Your task to perform on an android device: open app "Google Maps" Image 0: 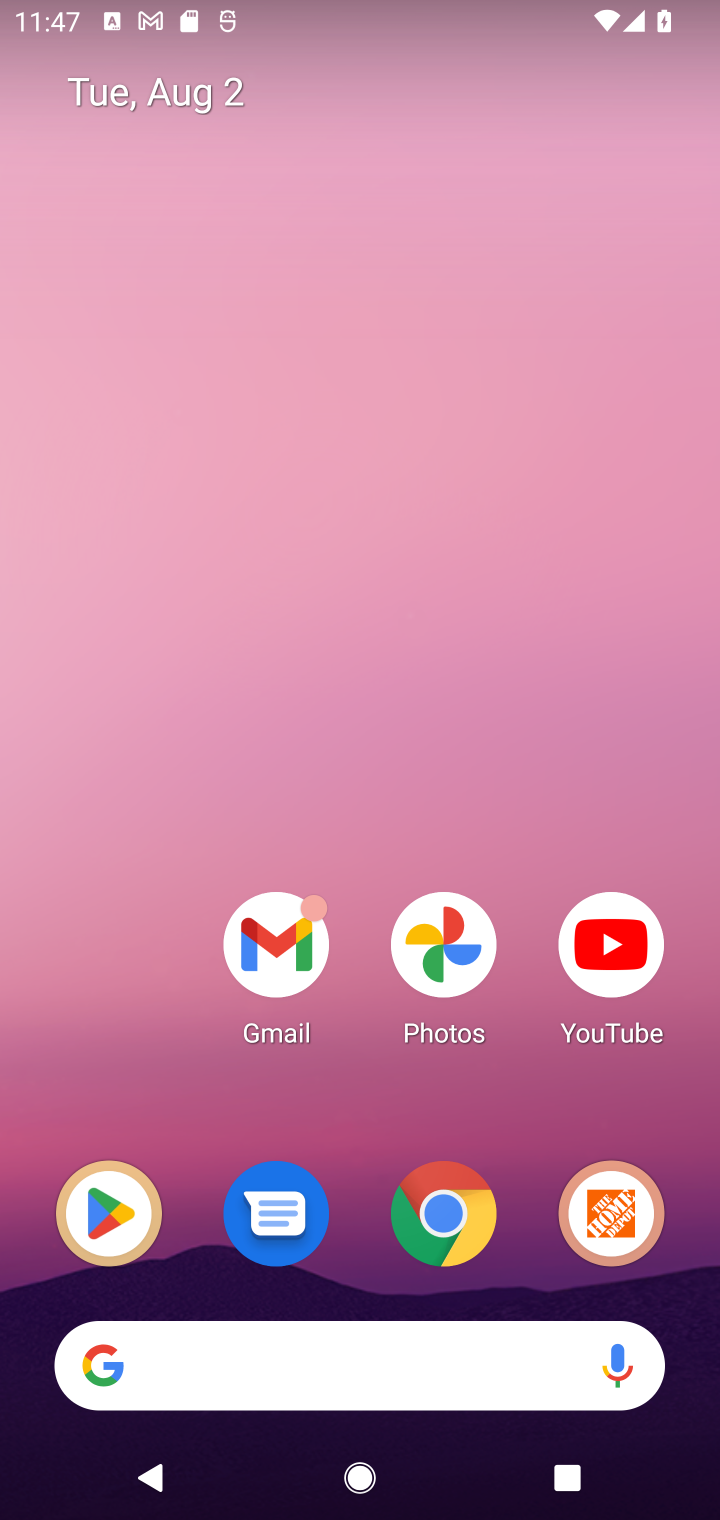
Step 0: click (88, 1229)
Your task to perform on an android device: open app "Google Maps" Image 1: 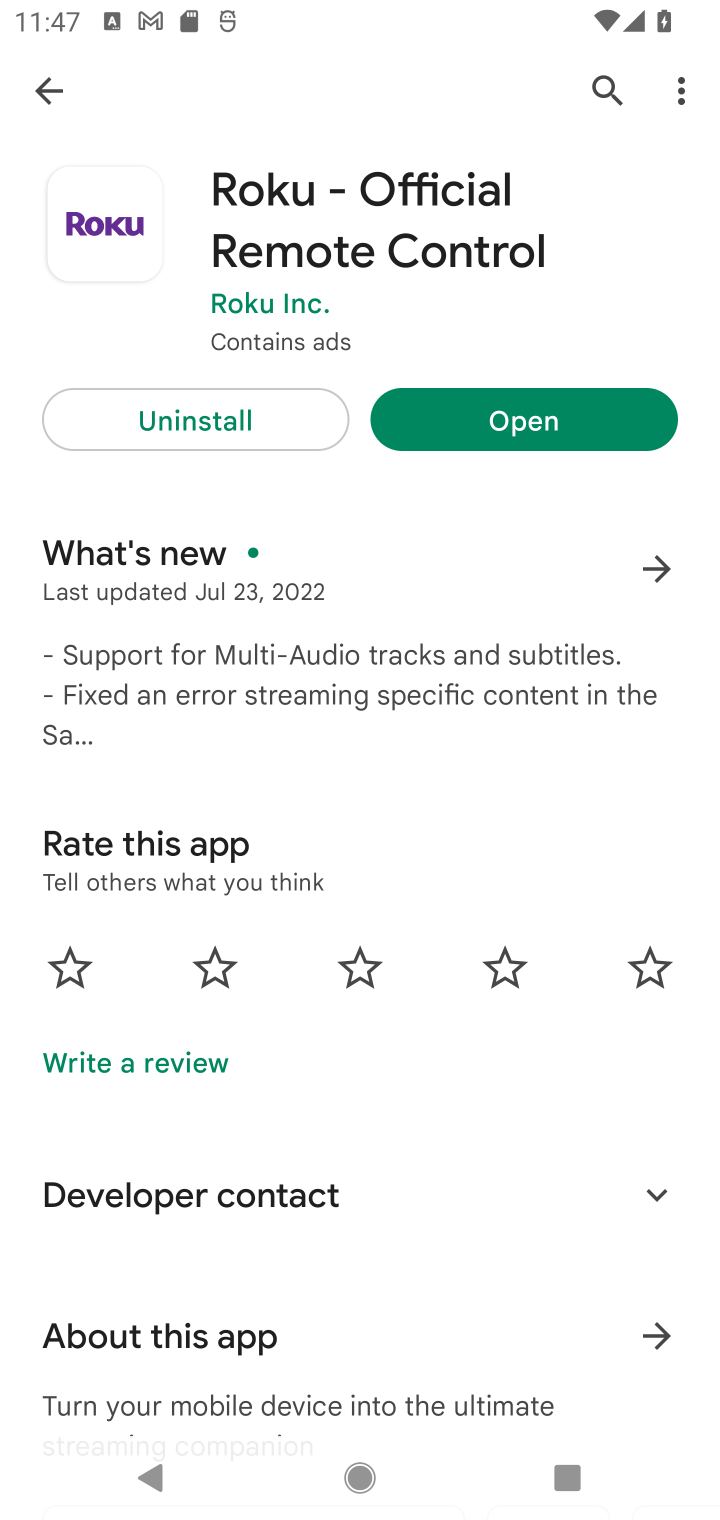
Step 1: click (47, 82)
Your task to perform on an android device: open app "Google Maps" Image 2: 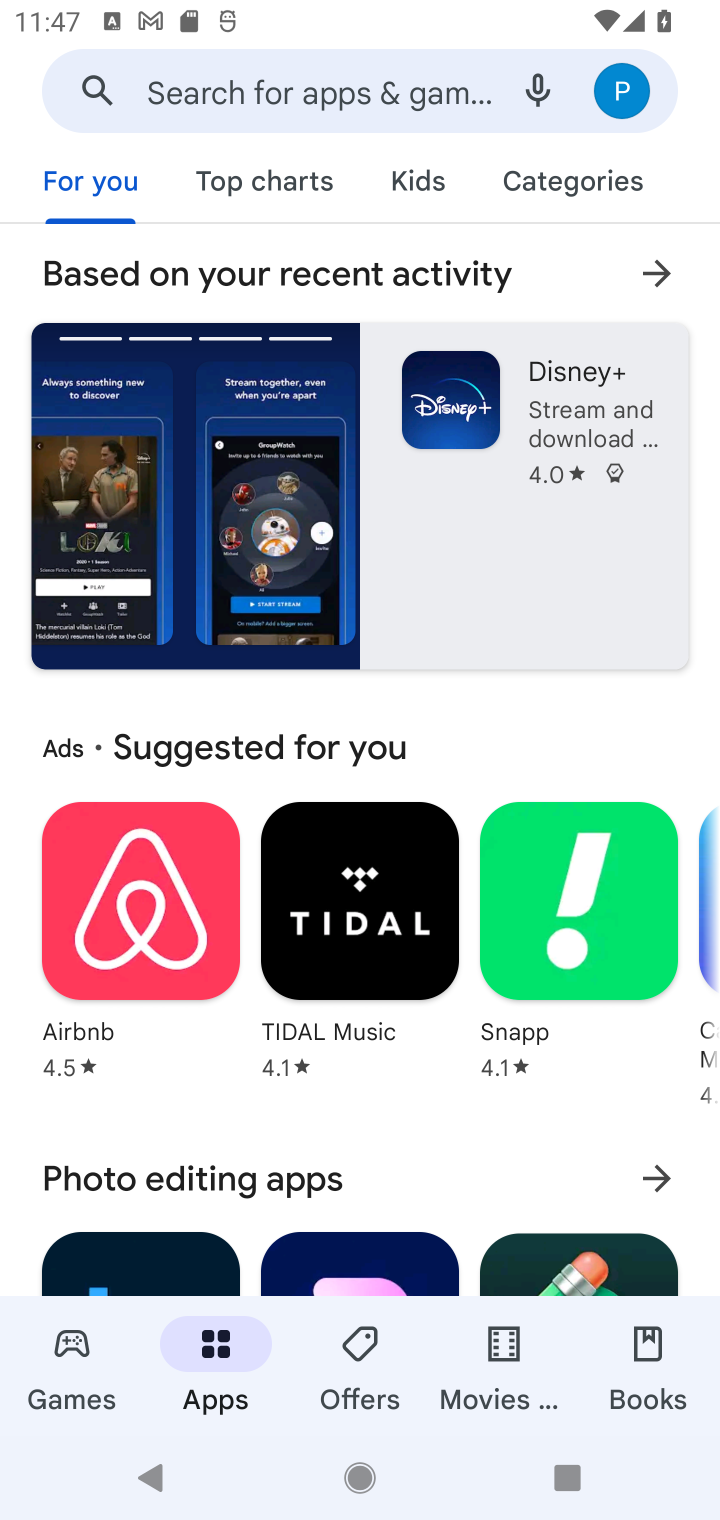
Step 2: click (233, 90)
Your task to perform on an android device: open app "Google Maps" Image 3: 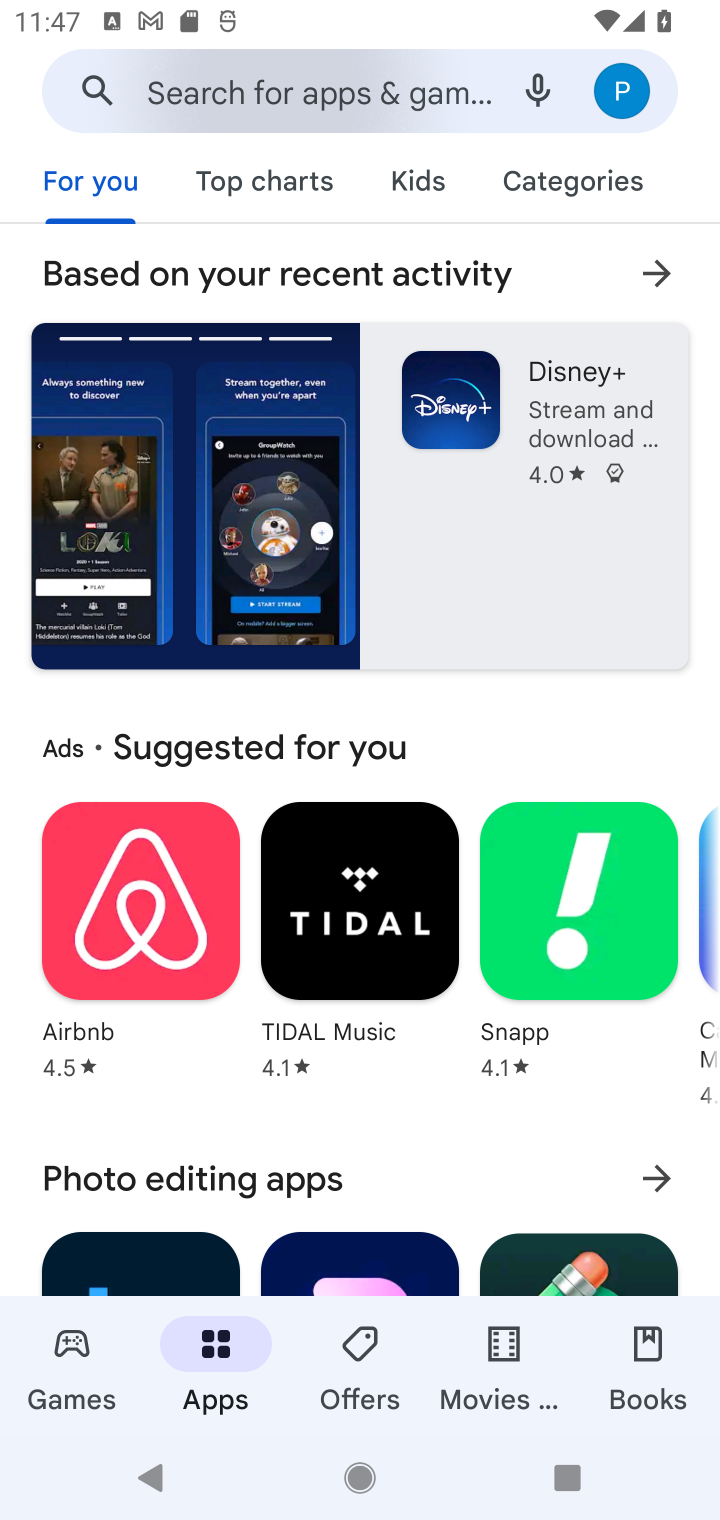
Step 3: click (277, 96)
Your task to perform on an android device: open app "Google Maps" Image 4: 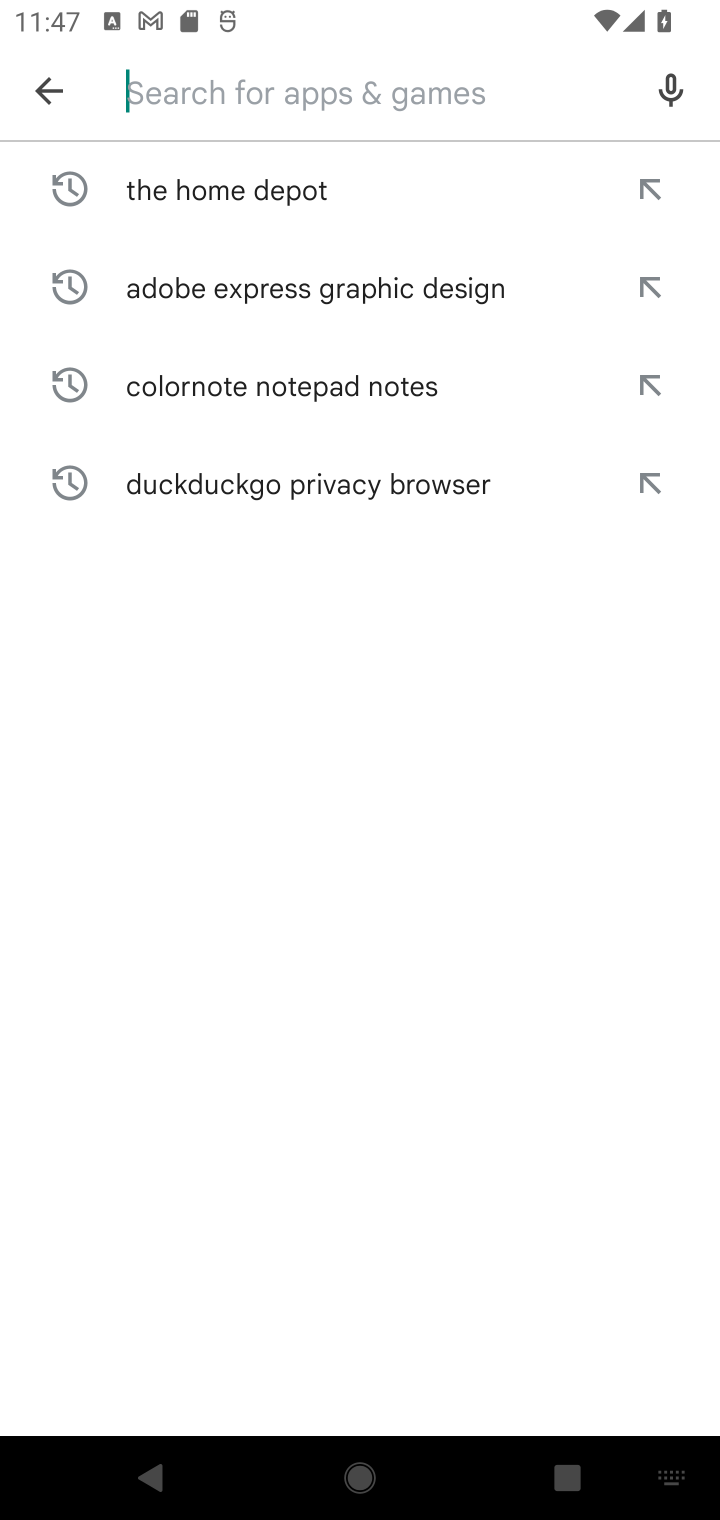
Step 4: type "Google Maps"
Your task to perform on an android device: open app "Google Maps" Image 5: 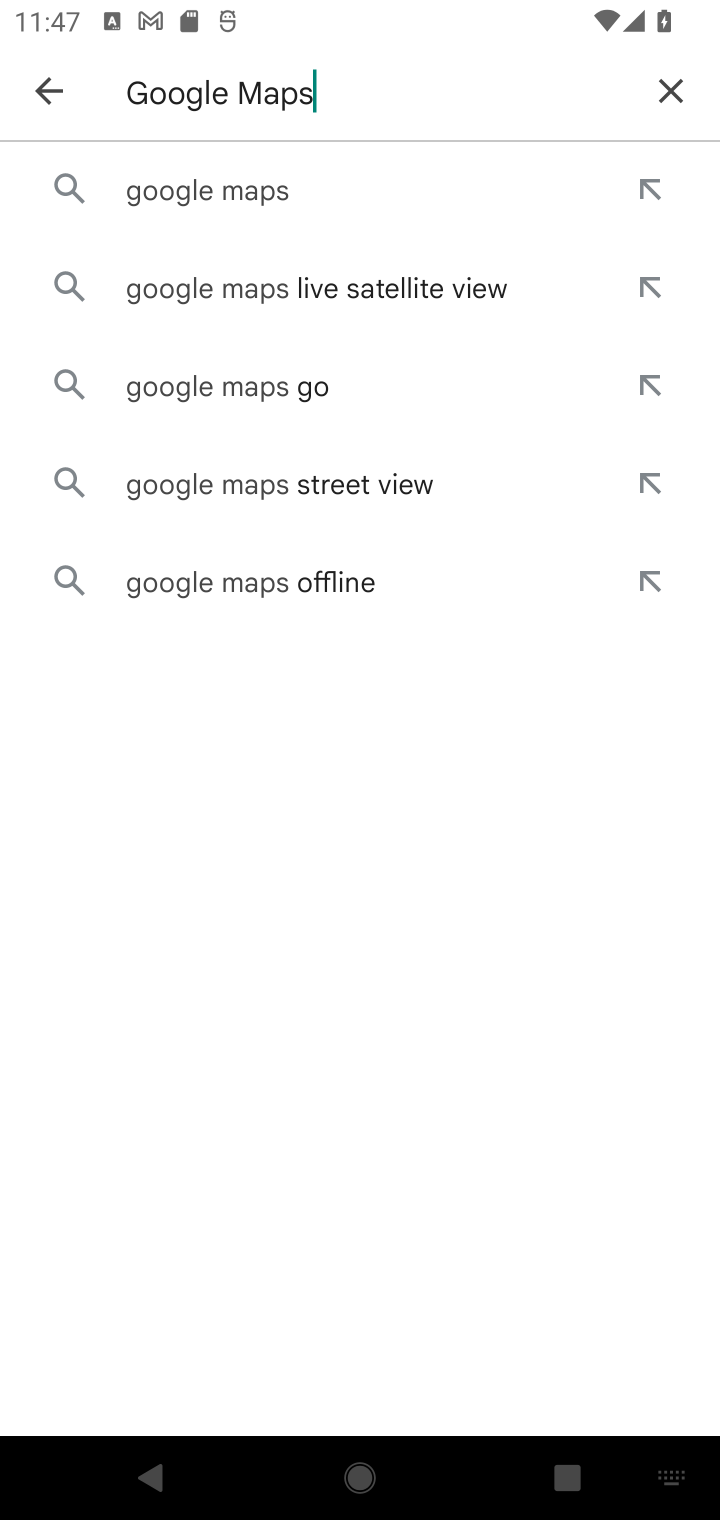
Step 5: click (228, 199)
Your task to perform on an android device: open app "Google Maps" Image 6: 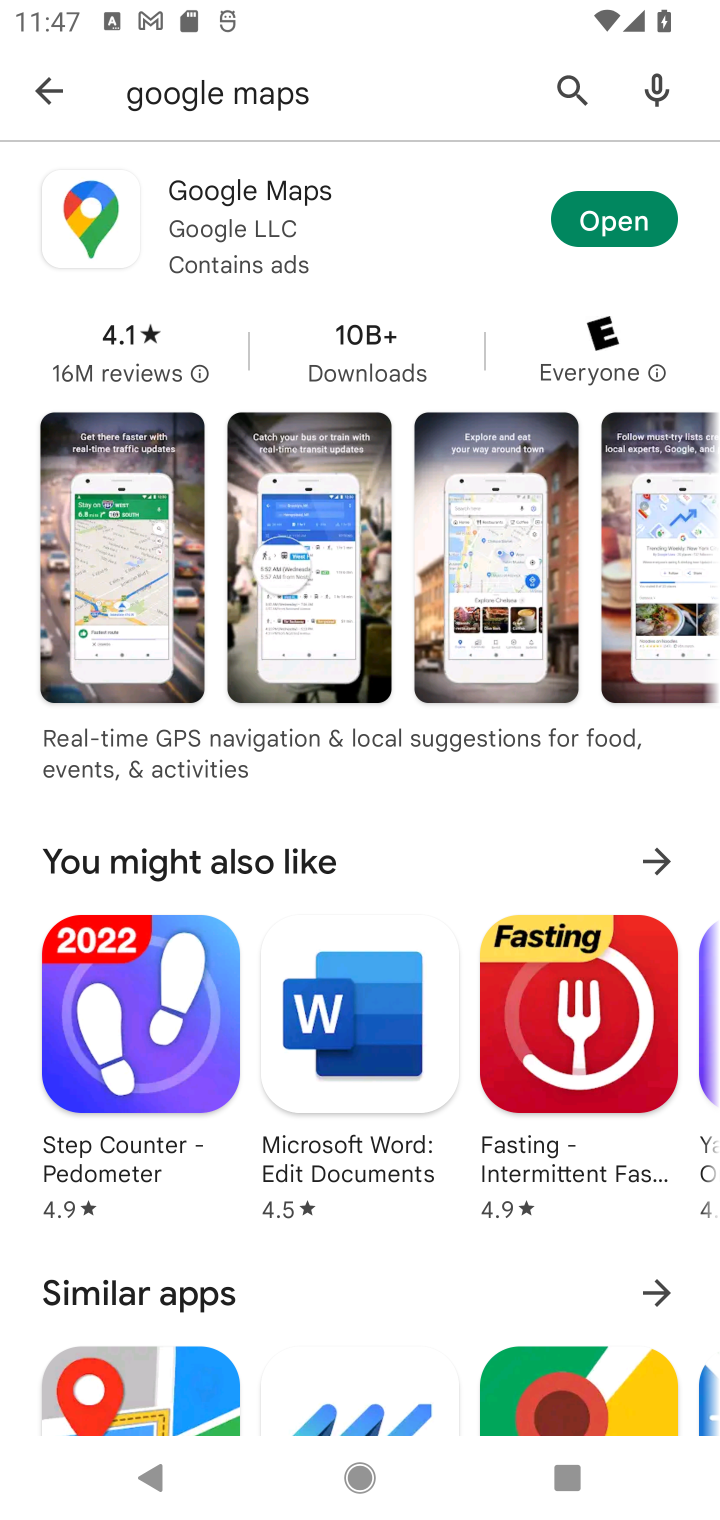
Step 6: click (618, 233)
Your task to perform on an android device: open app "Google Maps" Image 7: 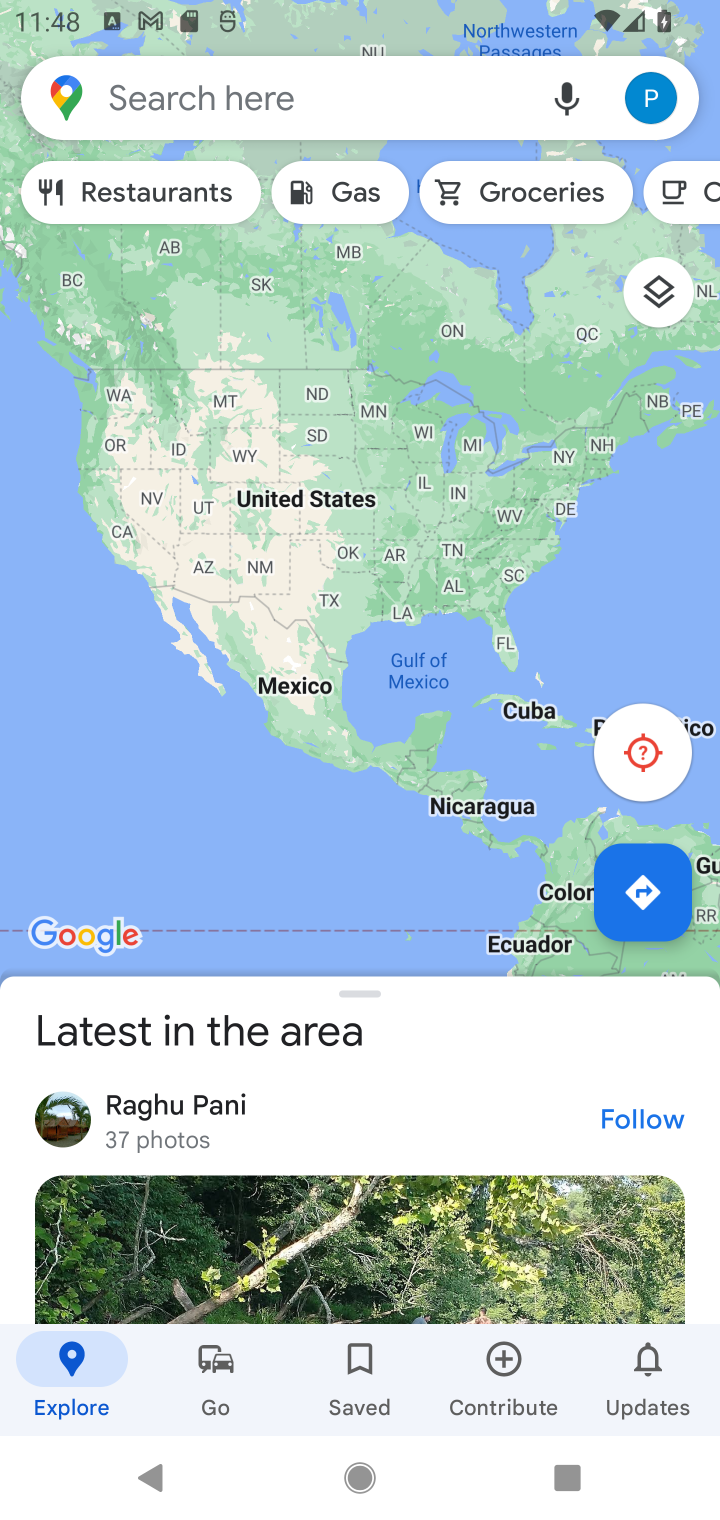
Step 7: task complete